Your task to perform on an android device: uninstall "Truecaller" Image 0: 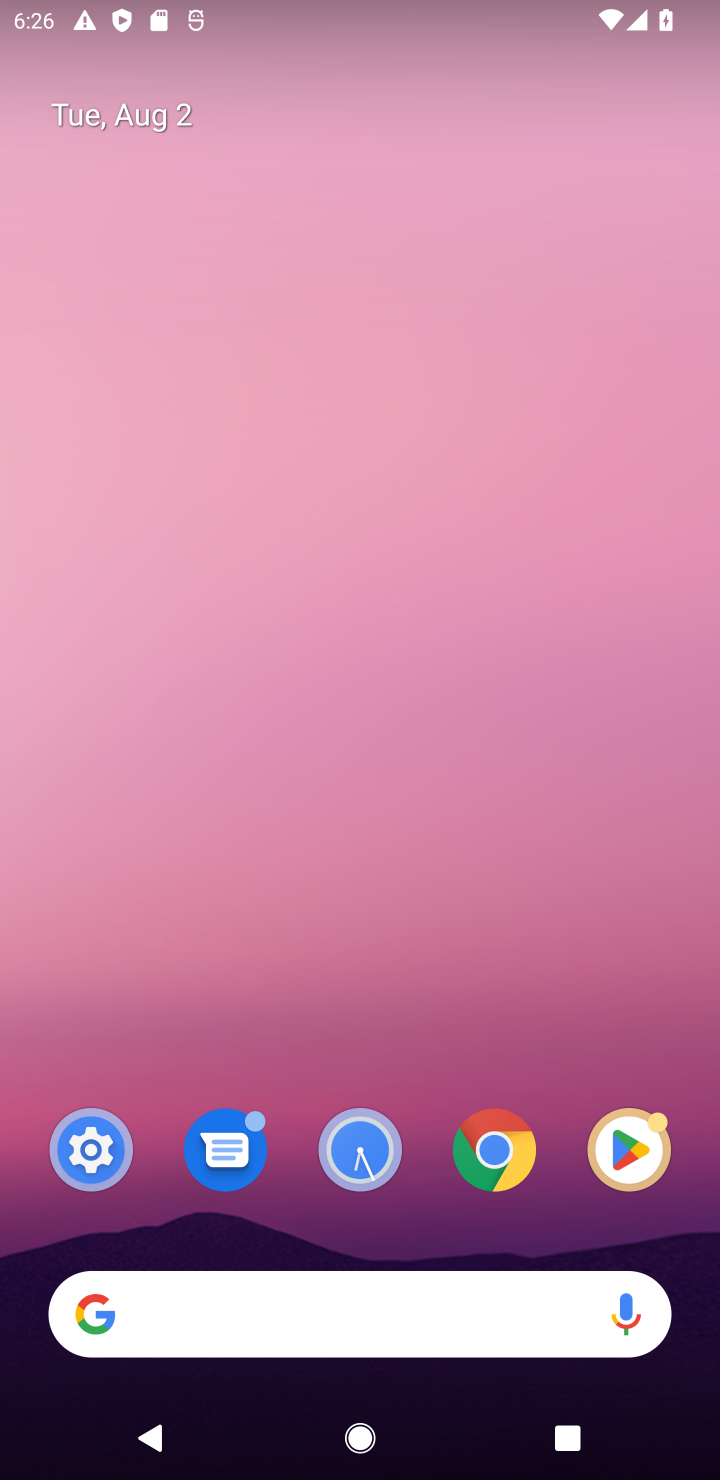
Step 0: click (638, 1163)
Your task to perform on an android device: uninstall "Truecaller" Image 1: 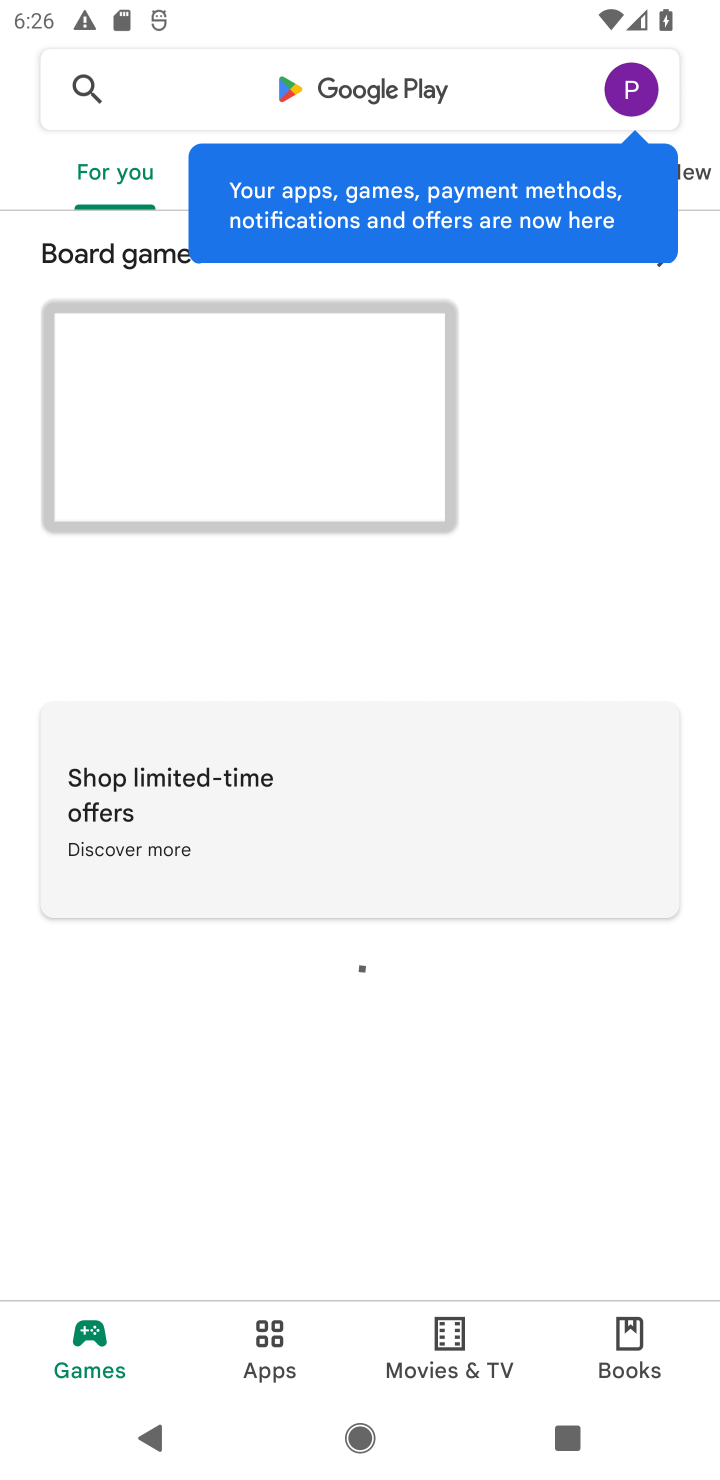
Step 1: click (298, 89)
Your task to perform on an android device: uninstall "Truecaller" Image 2: 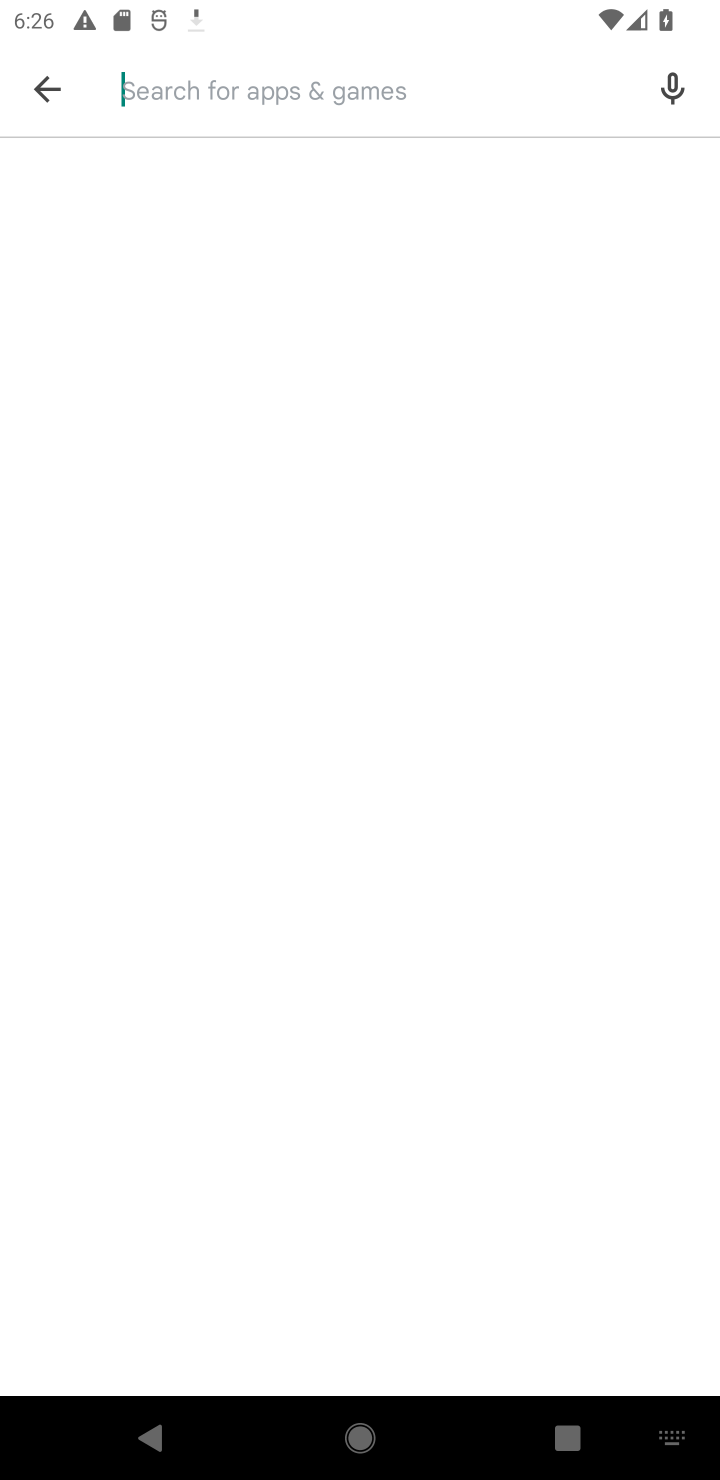
Step 2: type "Truecaller"
Your task to perform on an android device: uninstall "Truecaller" Image 3: 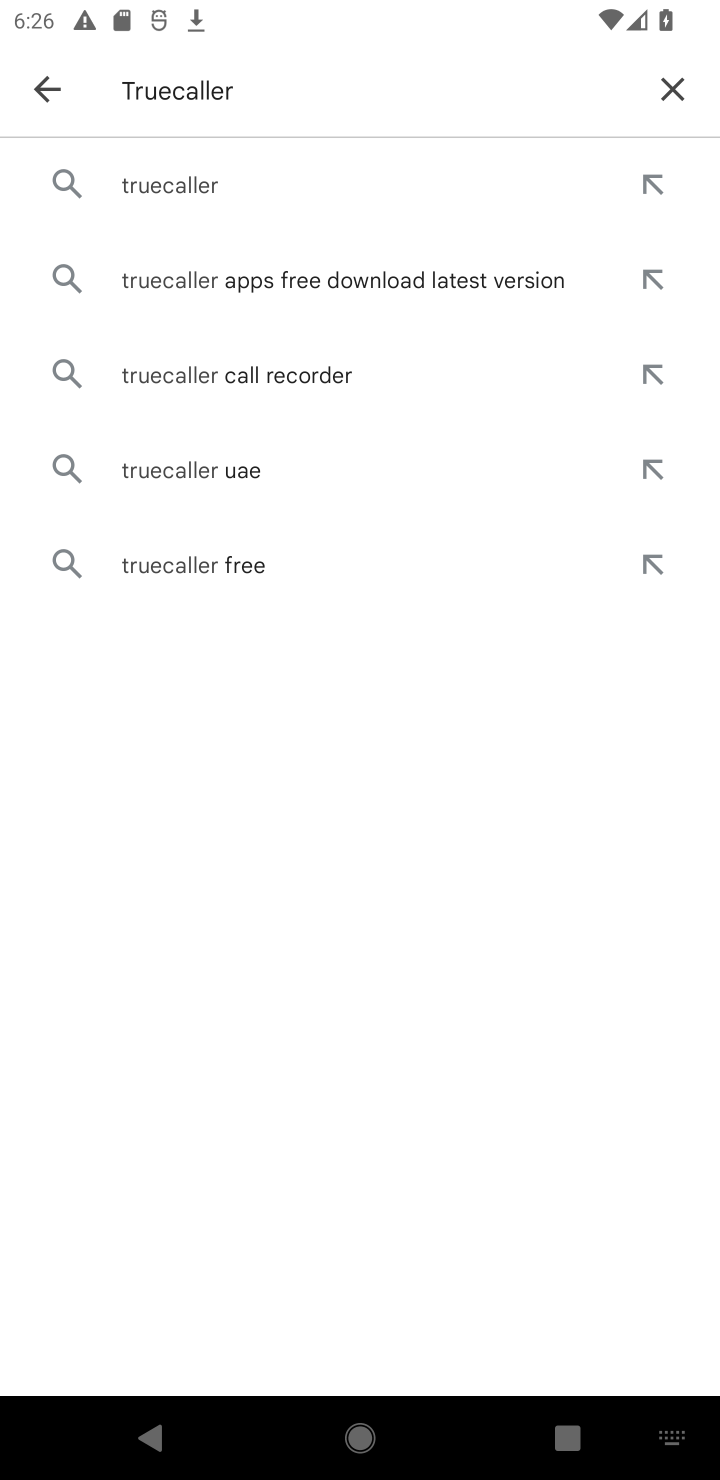
Step 3: click (153, 175)
Your task to perform on an android device: uninstall "Truecaller" Image 4: 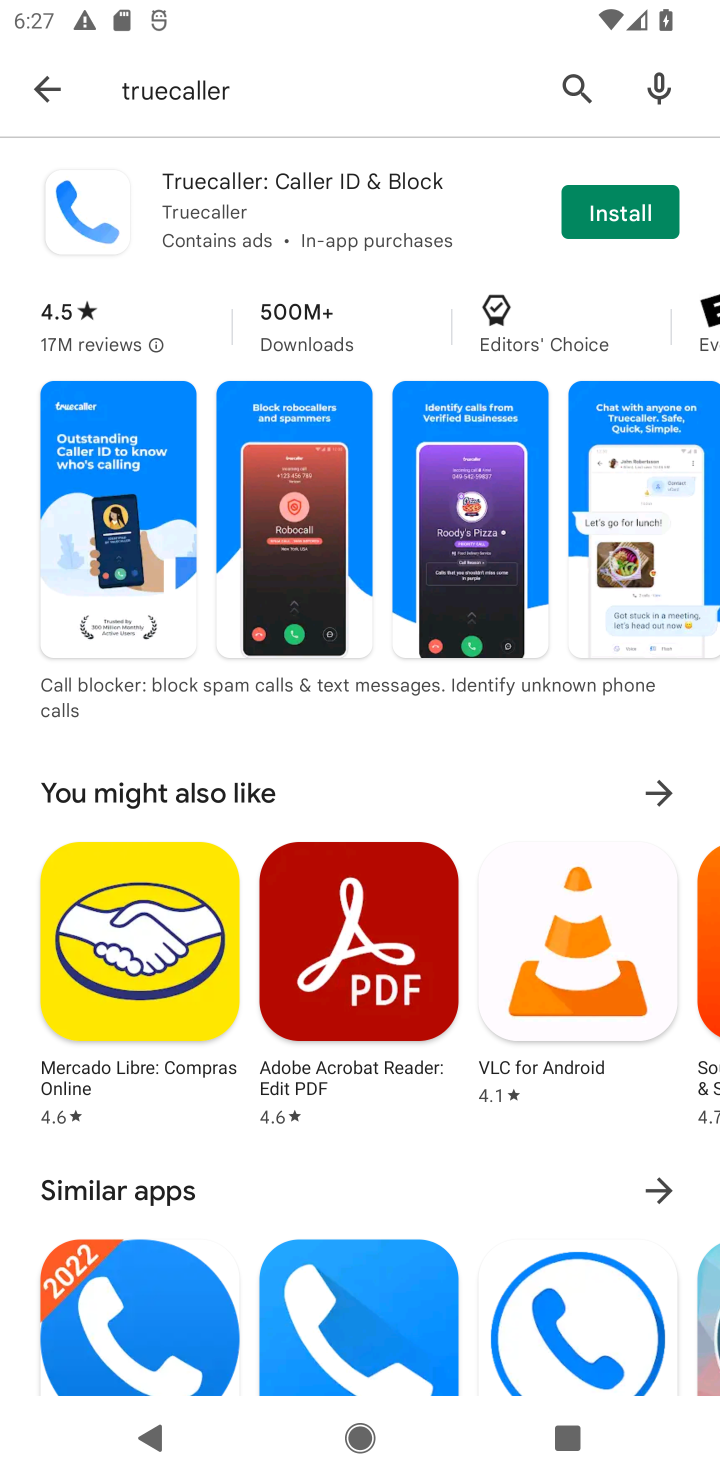
Step 4: task complete